Your task to perform on an android device: open chrome privacy settings Image 0: 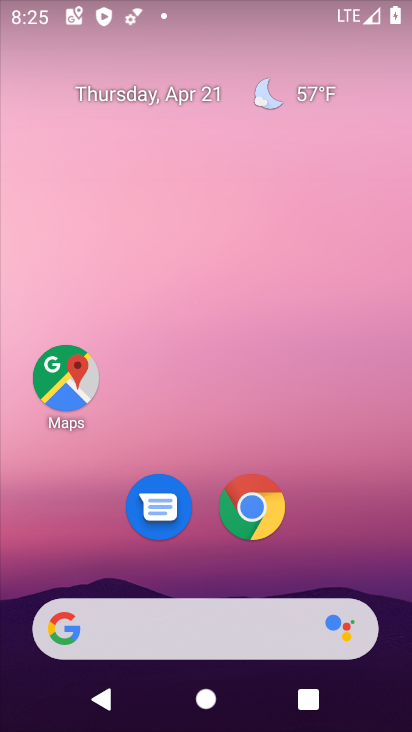
Step 0: click (252, 499)
Your task to perform on an android device: open chrome privacy settings Image 1: 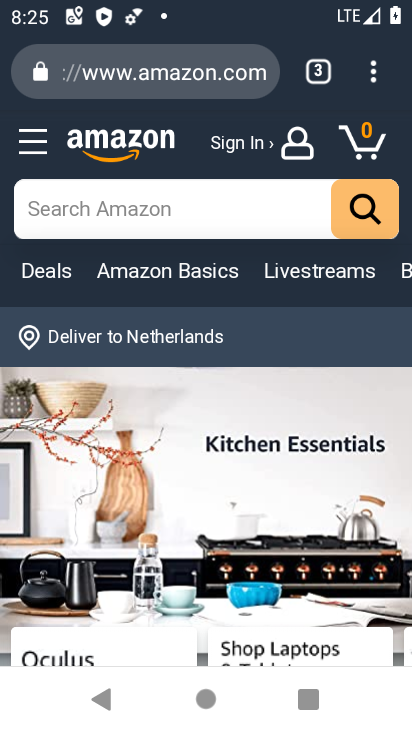
Step 1: drag from (371, 86) to (234, 495)
Your task to perform on an android device: open chrome privacy settings Image 2: 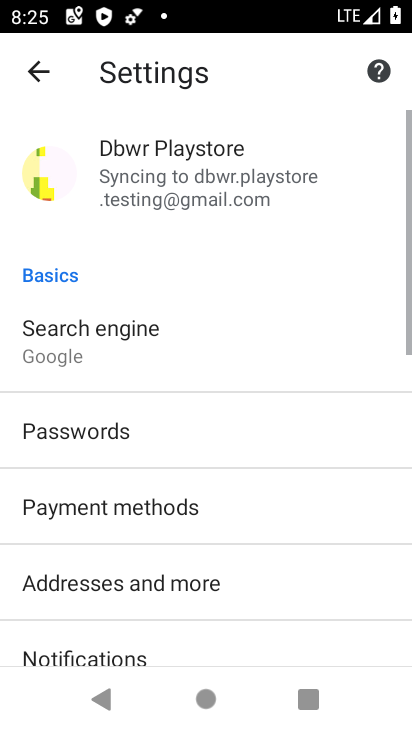
Step 2: drag from (191, 603) to (221, 77)
Your task to perform on an android device: open chrome privacy settings Image 3: 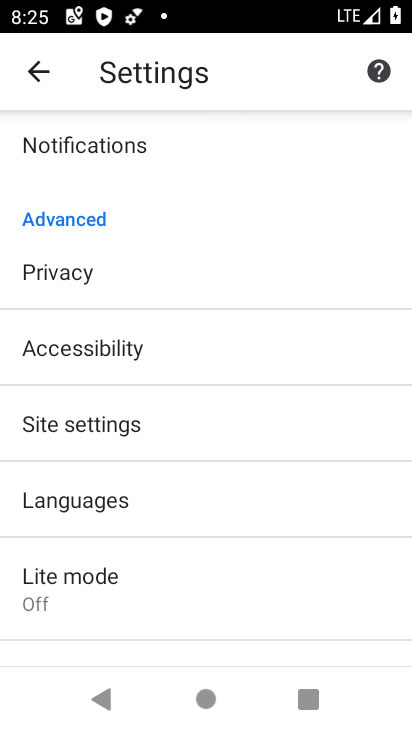
Step 3: click (132, 271)
Your task to perform on an android device: open chrome privacy settings Image 4: 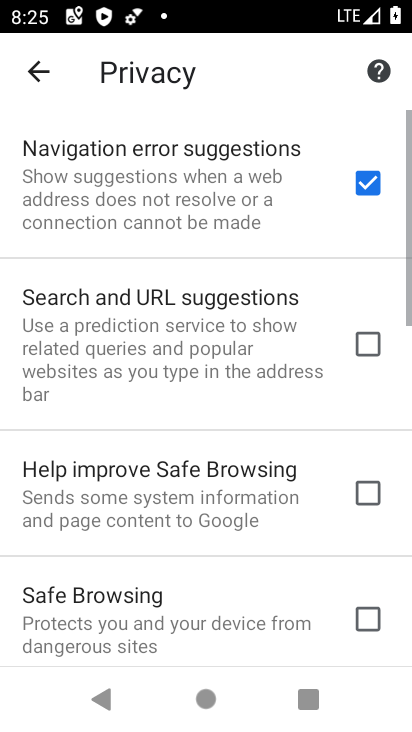
Step 4: task complete